Your task to perform on an android device: open app "Spotify" (install if not already installed) and enter user name: "infallible@icloud.com" and password: "implored" Image 0: 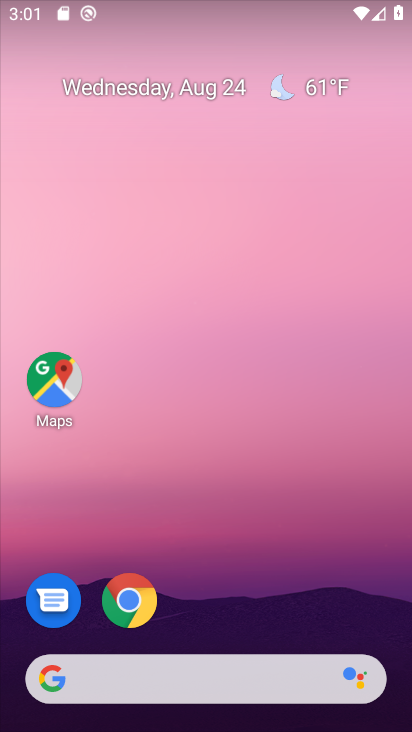
Step 0: drag from (262, 541) to (335, 40)
Your task to perform on an android device: open app "Spotify" (install if not already installed) and enter user name: "infallible@icloud.com" and password: "implored" Image 1: 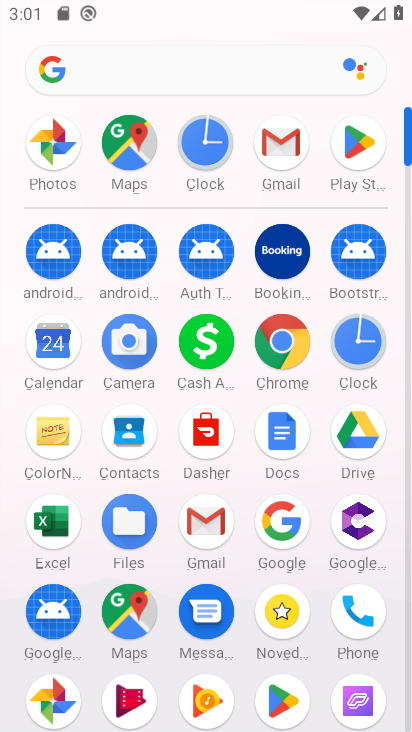
Step 1: click (357, 147)
Your task to perform on an android device: open app "Spotify" (install if not already installed) and enter user name: "infallible@icloud.com" and password: "implored" Image 2: 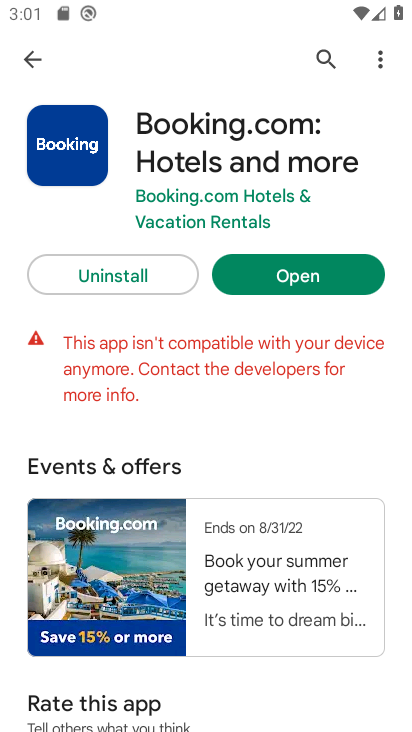
Step 2: click (329, 60)
Your task to perform on an android device: open app "Spotify" (install if not already installed) and enter user name: "infallible@icloud.com" and password: "implored" Image 3: 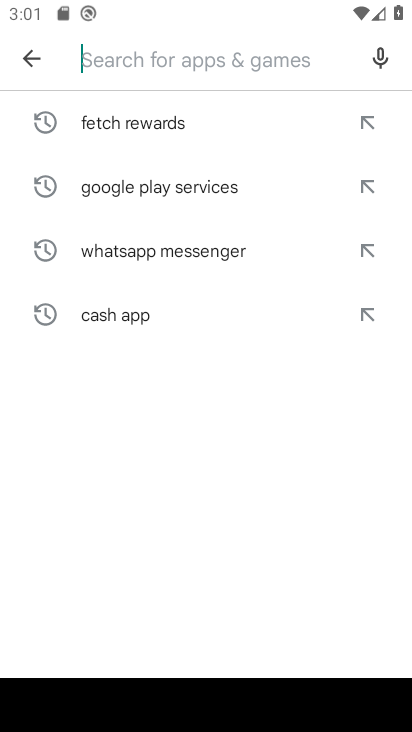
Step 3: type "spotify"
Your task to perform on an android device: open app "Spotify" (install if not already installed) and enter user name: "infallible@icloud.com" and password: "implored" Image 4: 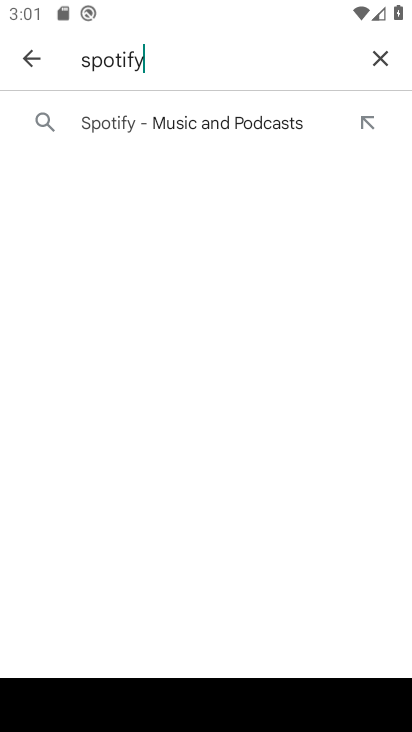
Step 4: click (188, 118)
Your task to perform on an android device: open app "Spotify" (install if not already installed) and enter user name: "infallible@icloud.com" and password: "implored" Image 5: 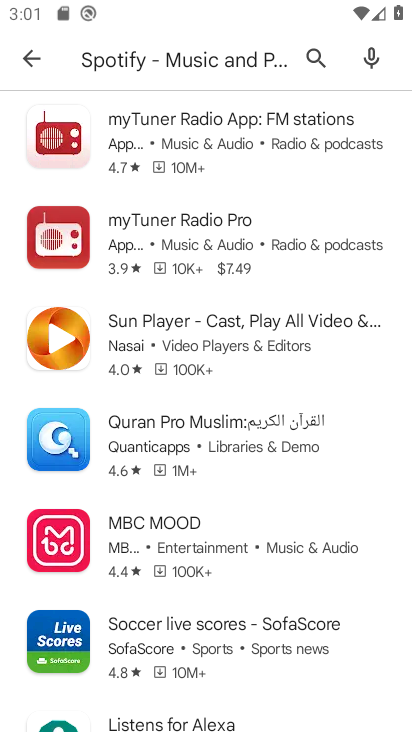
Step 5: task complete